Your task to perform on an android device: set the timer Image 0: 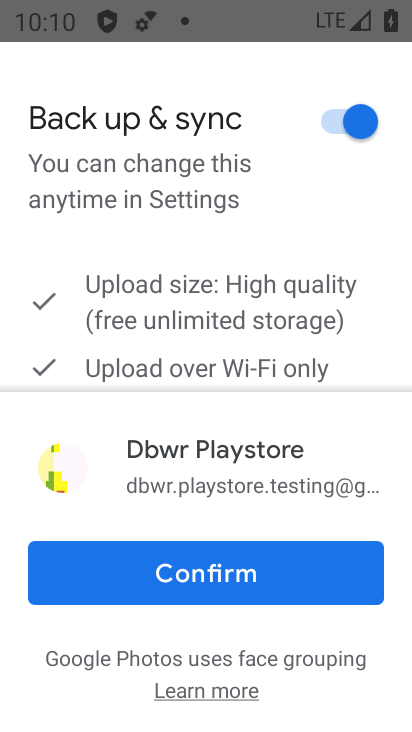
Step 0: press home button
Your task to perform on an android device: set the timer Image 1: 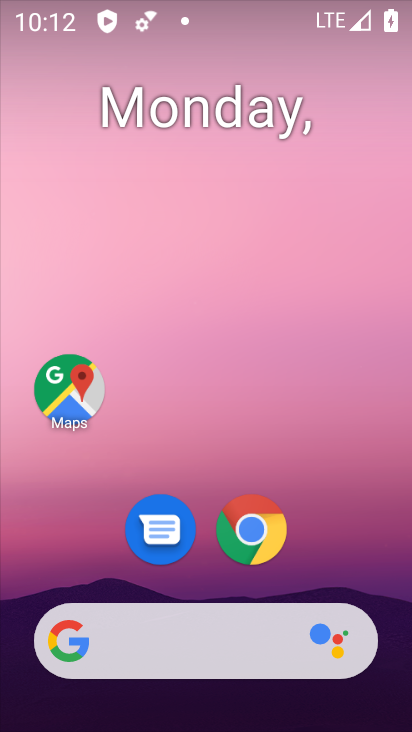
Step 1: drag from (6, 699) to (312, 170)
Your task to perform on an android device: set the timer Image 2: 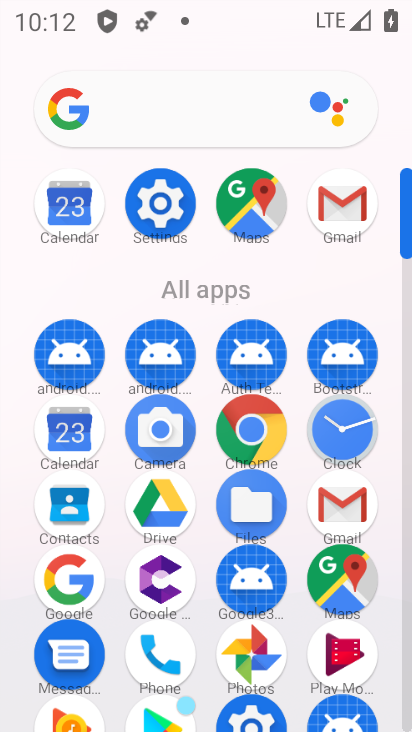
Step 2: click (156, 203)
Your task to perform on an android device: set the timer Image 3: 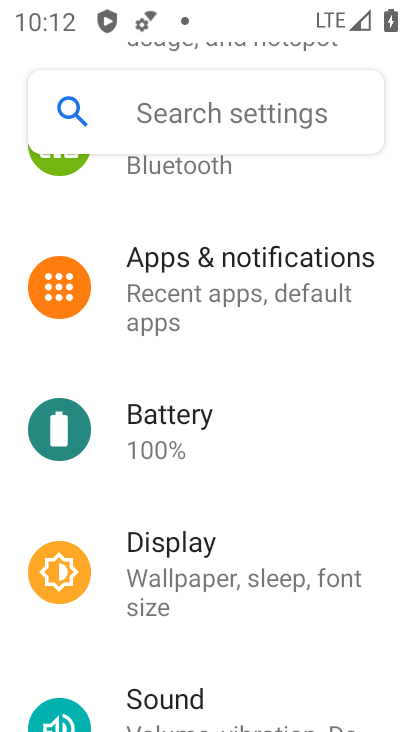
Step 3: press home button
Your task to perform on an android device: set the timer Image 4: 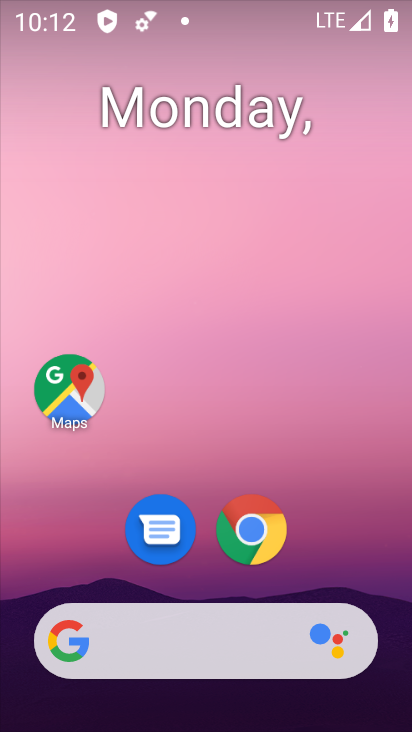
Step 4: drag from (8, 632) to (276, 206)
Your task to perform on an android device: set the timer Image 5: 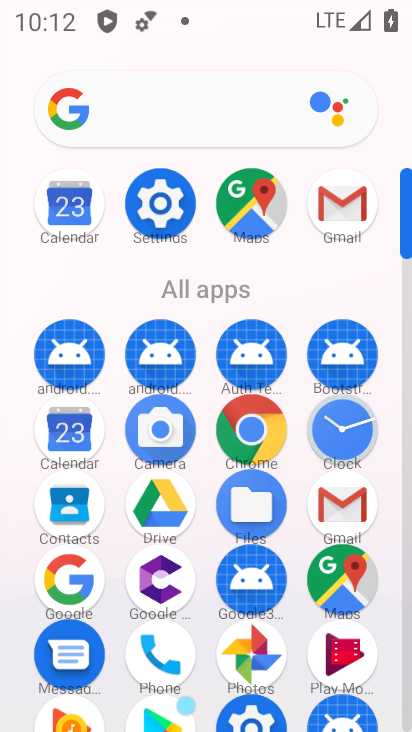
Step 5: click (343, 434)
Your task to perform on an android device: set the timer Image 6: 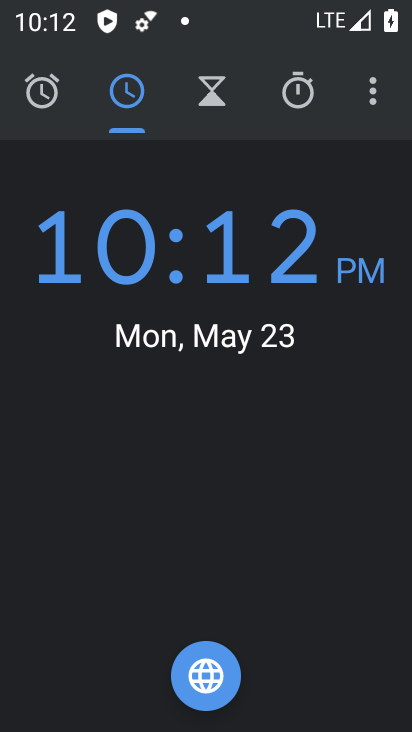
Step 6: click (217, 93)
Your task to perform on an android device: set the timer Image 7: 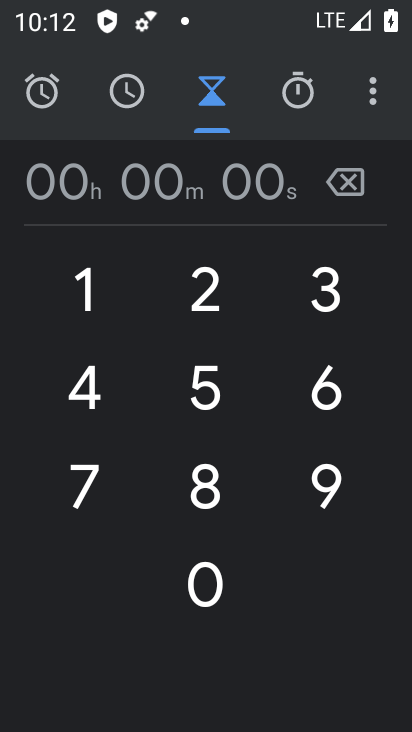
Step 7: click (87, 312)
Your task to perform on an android device: set the timer Image 8: 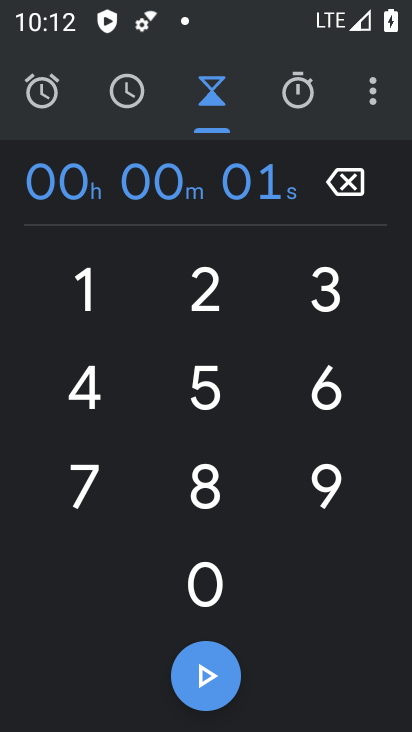
Step 8: click (191, 595)
Your task to perform on an android device: set the timer Image 9: 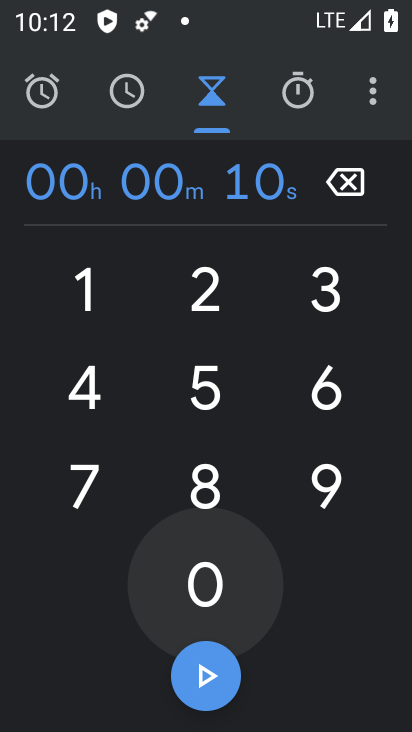
Step 9: click (195, 593)
Your task to perform on an android device: set the timer Image 10: 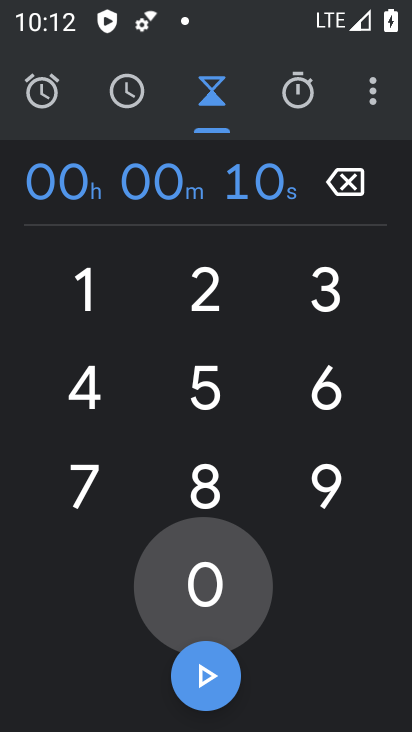
Step 10: click (201, 587)
Your task to perform on an android device: set the timer Image 11: 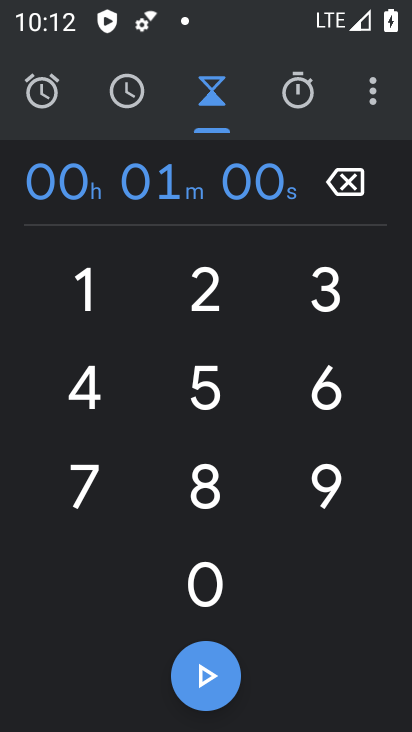
Step 11: click (201, 587)
Your task to perform on an android device: set the timer Image 12: 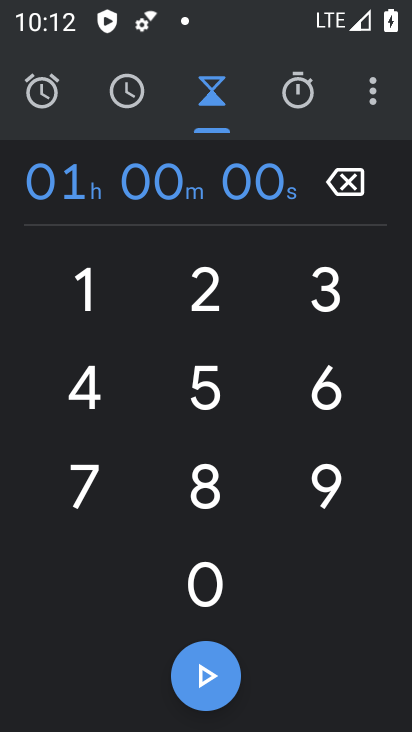
Step 12: task complete